Your task to perform on an android device: open app "Spotify: Music and Podcasts" (install if not already installed) Image 0: 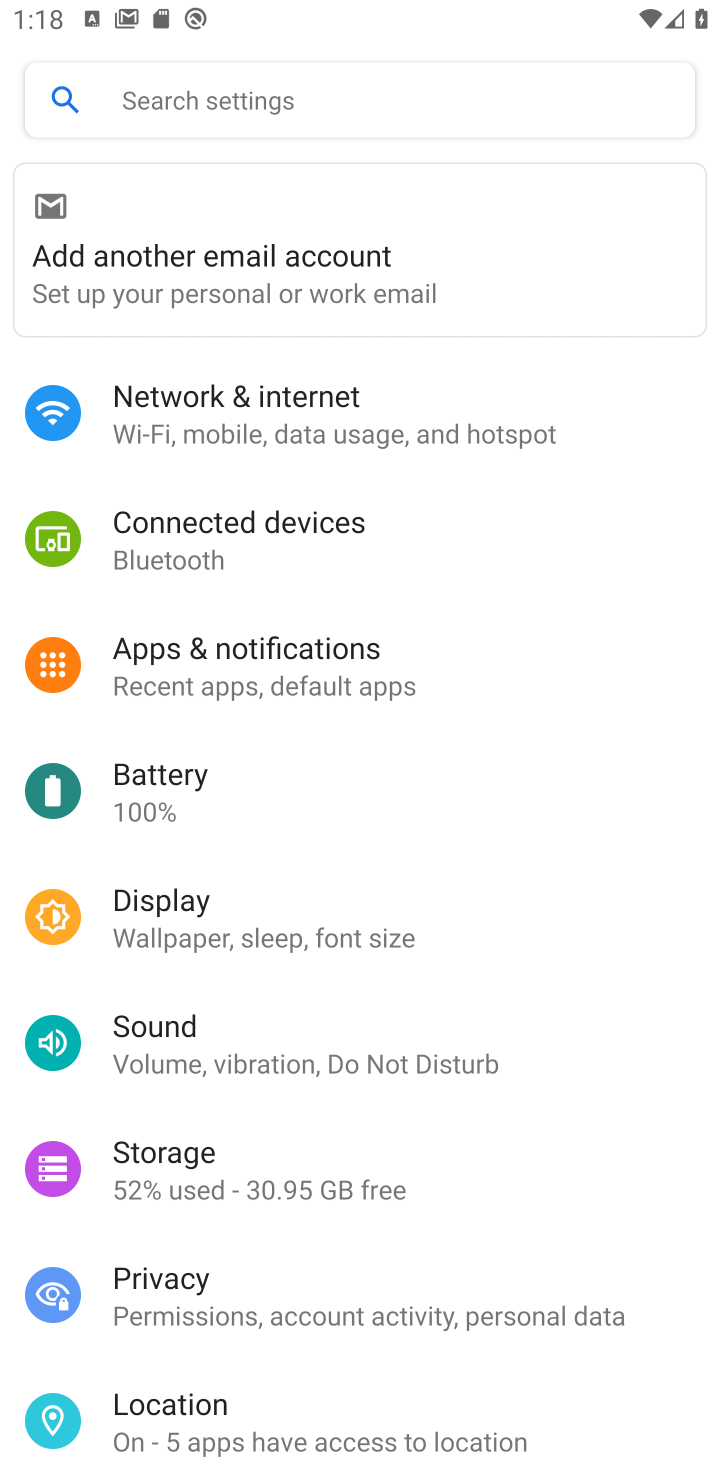
Step 0: press home button
Your task to perform on an android device: open app "Spotify: Music and Podcasts" (install if not already installed) Image 1: 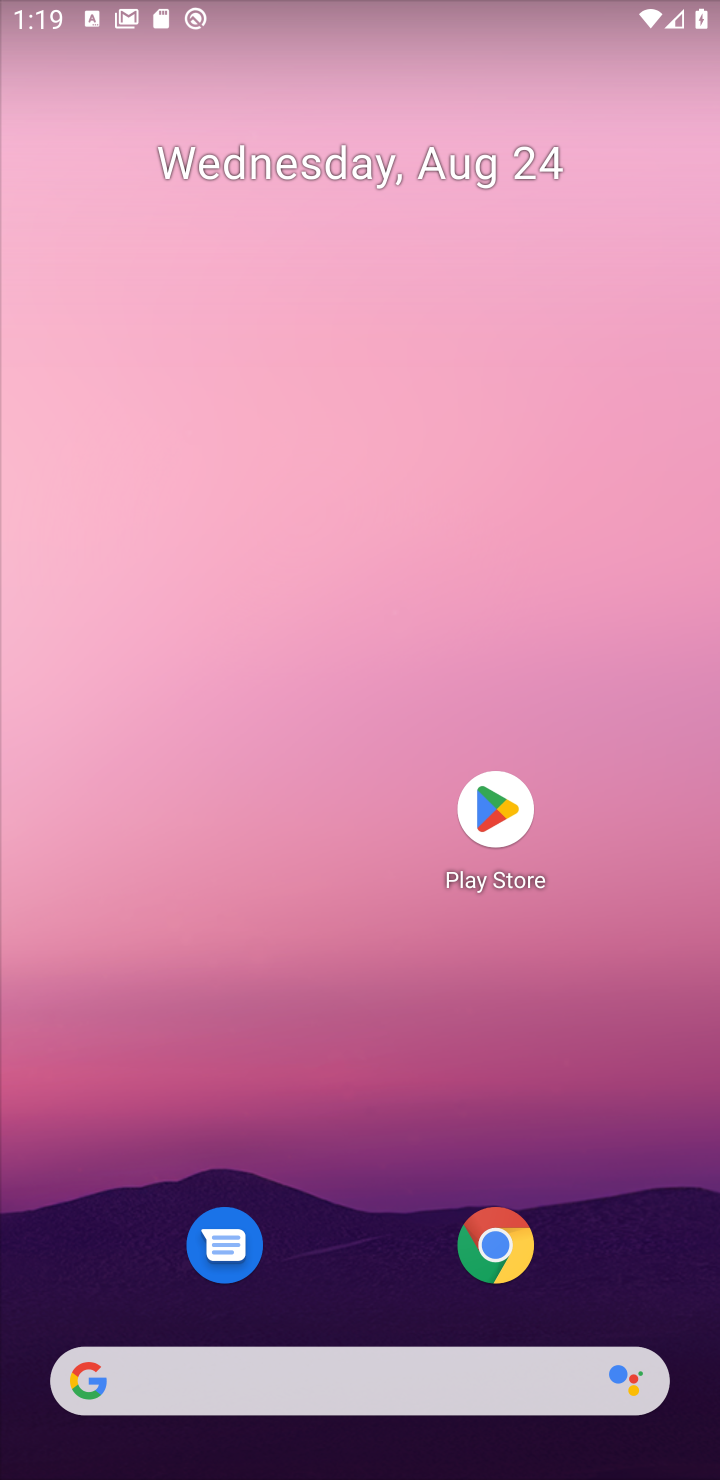
Step 1: click (498, 776)
Your task to perform on an android device: open app "Spotify: Music and Podcasts" (install if not already installed) Image 2: 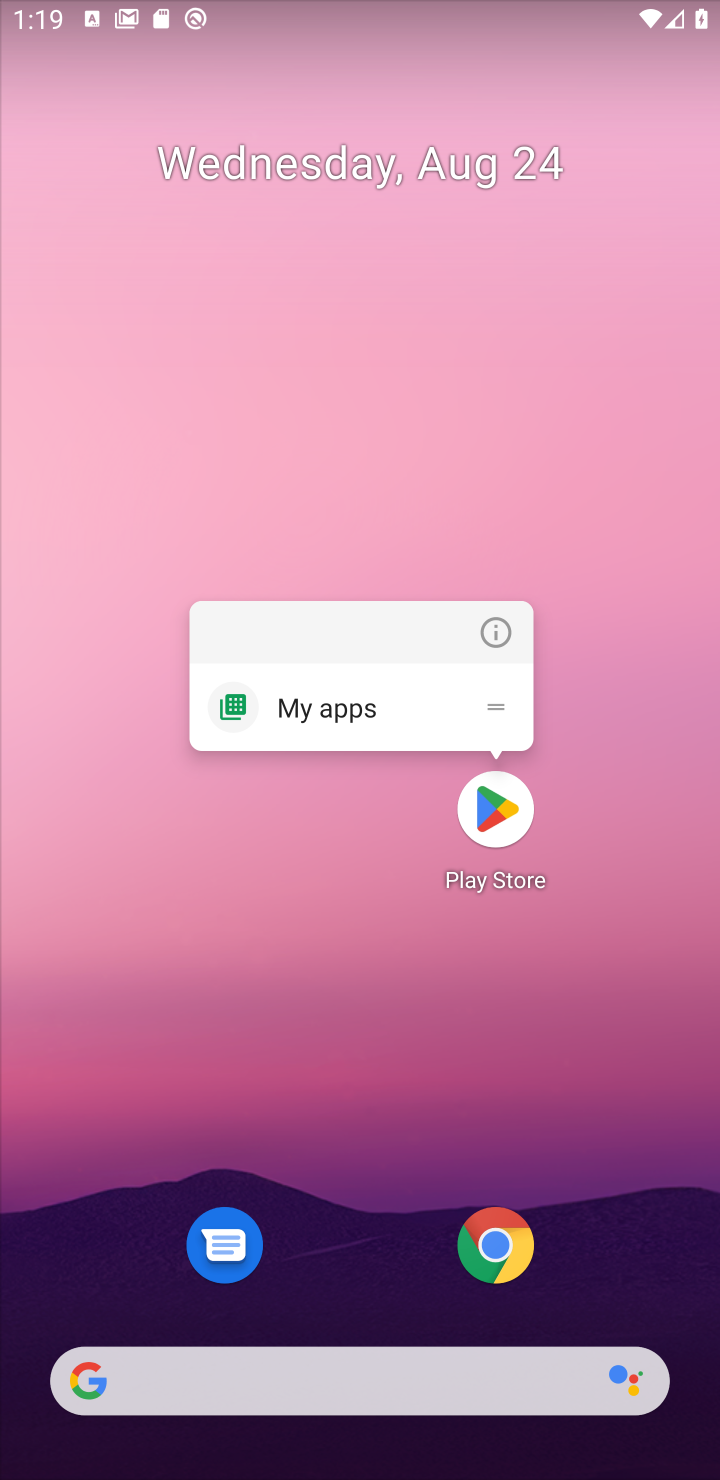
Step 2: click (498, 779)
Your task to perform on an android device: open app "Spotify: Music and Podcasts" (install if not already installed) Image 3: 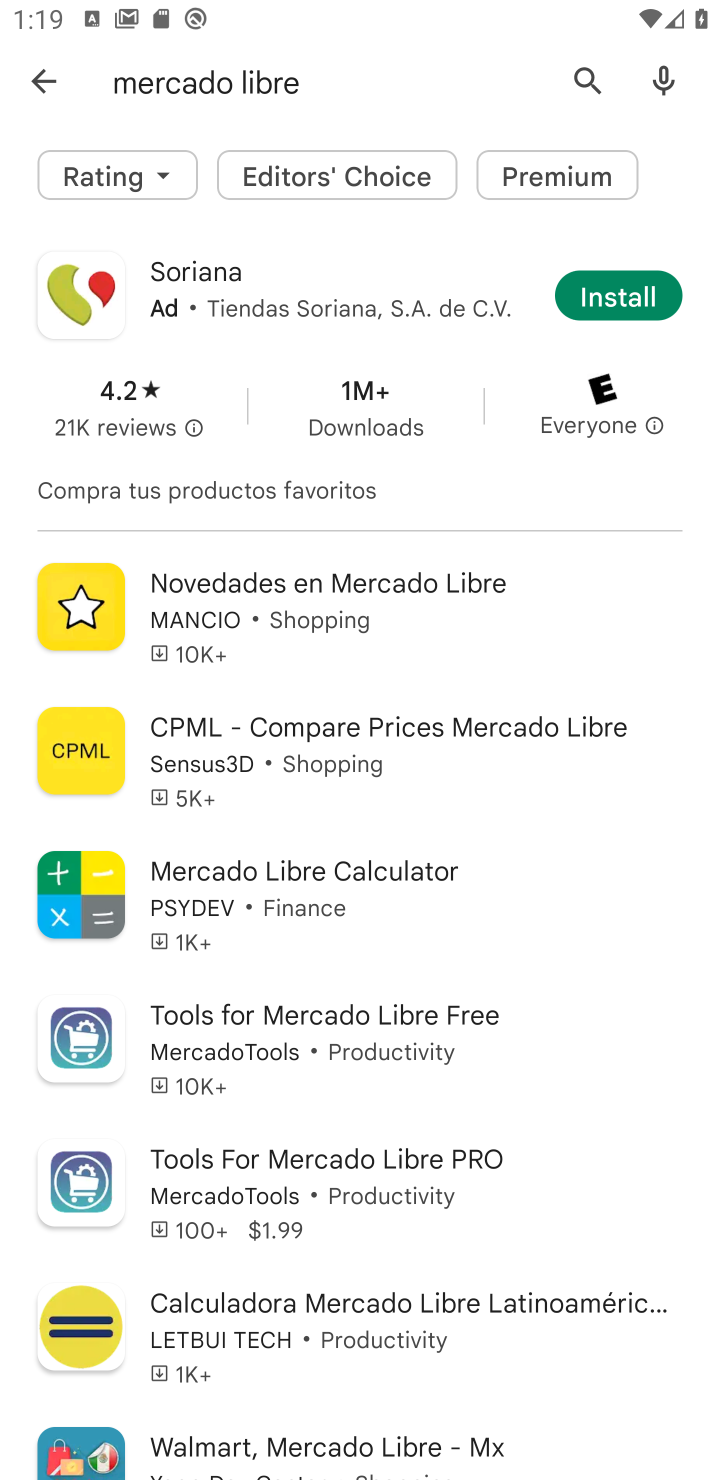
Step 3: click (589, 65)
Your task to perform on an android device: open app "Spotify: Music and Podcasts" (install if not already installed) Image 4: 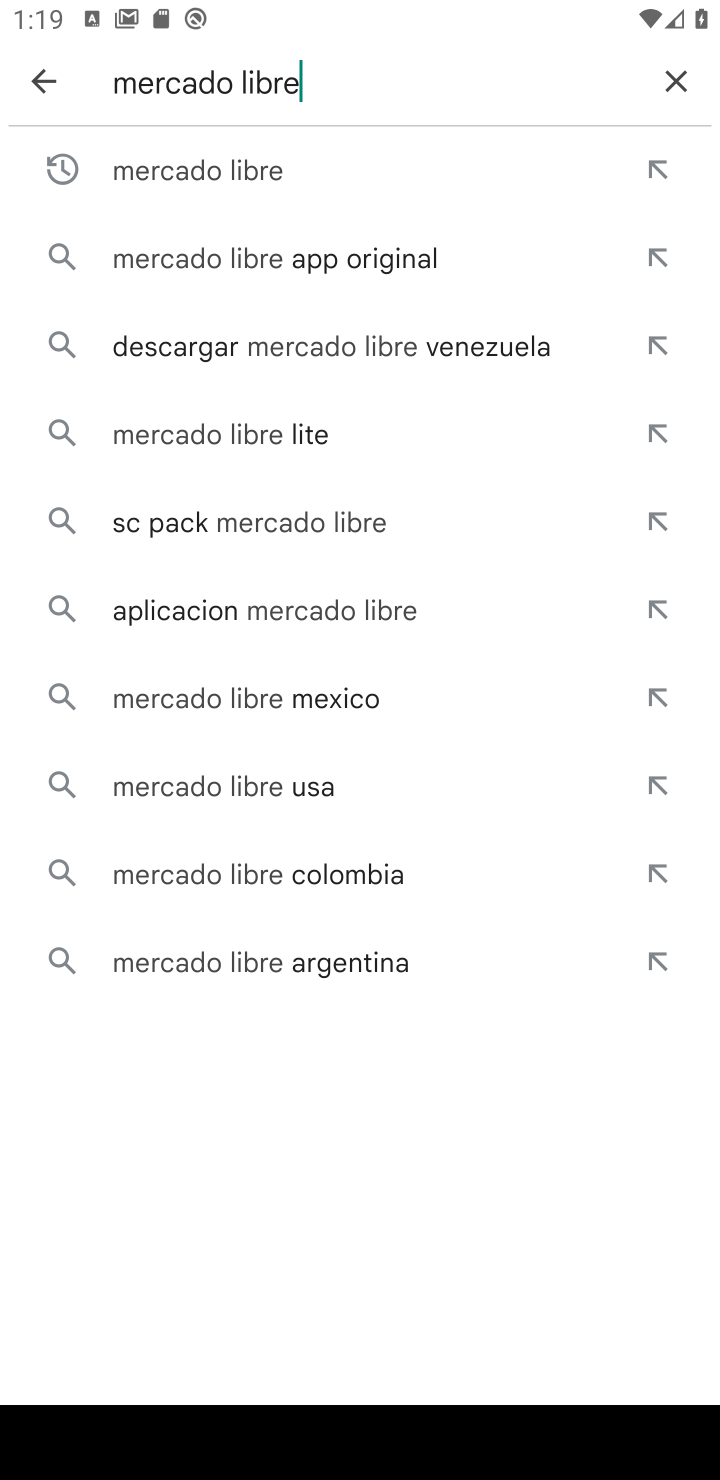
Step 4: click (665, 64)
Your task to perform on an android device: open app "Spotify: Music and Podcasts" (install if not already installed) Image 5: 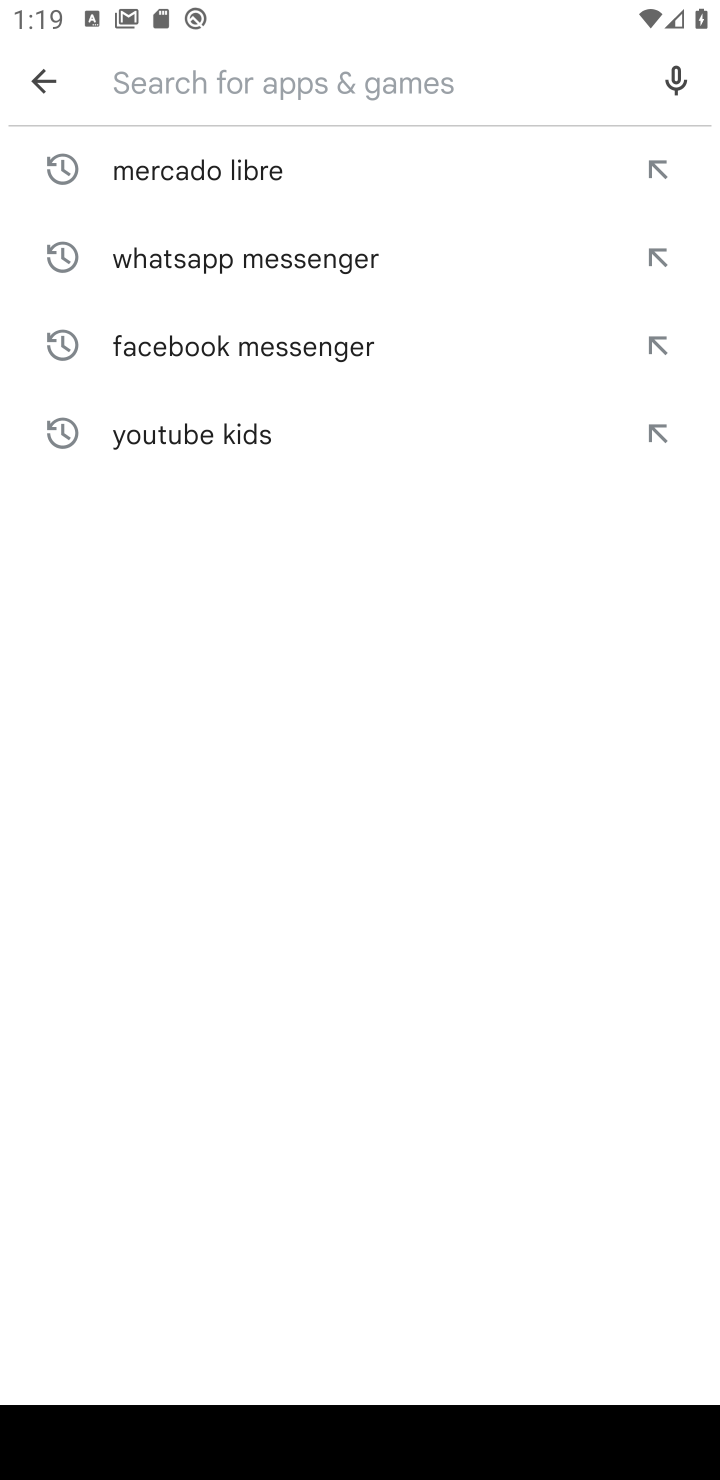
Step 5: type "Spotify: Music and Podcasts"
Your task to perform on an android device: open app "Spotify: Music and Podcasts" (install if not already installed) Image 6: 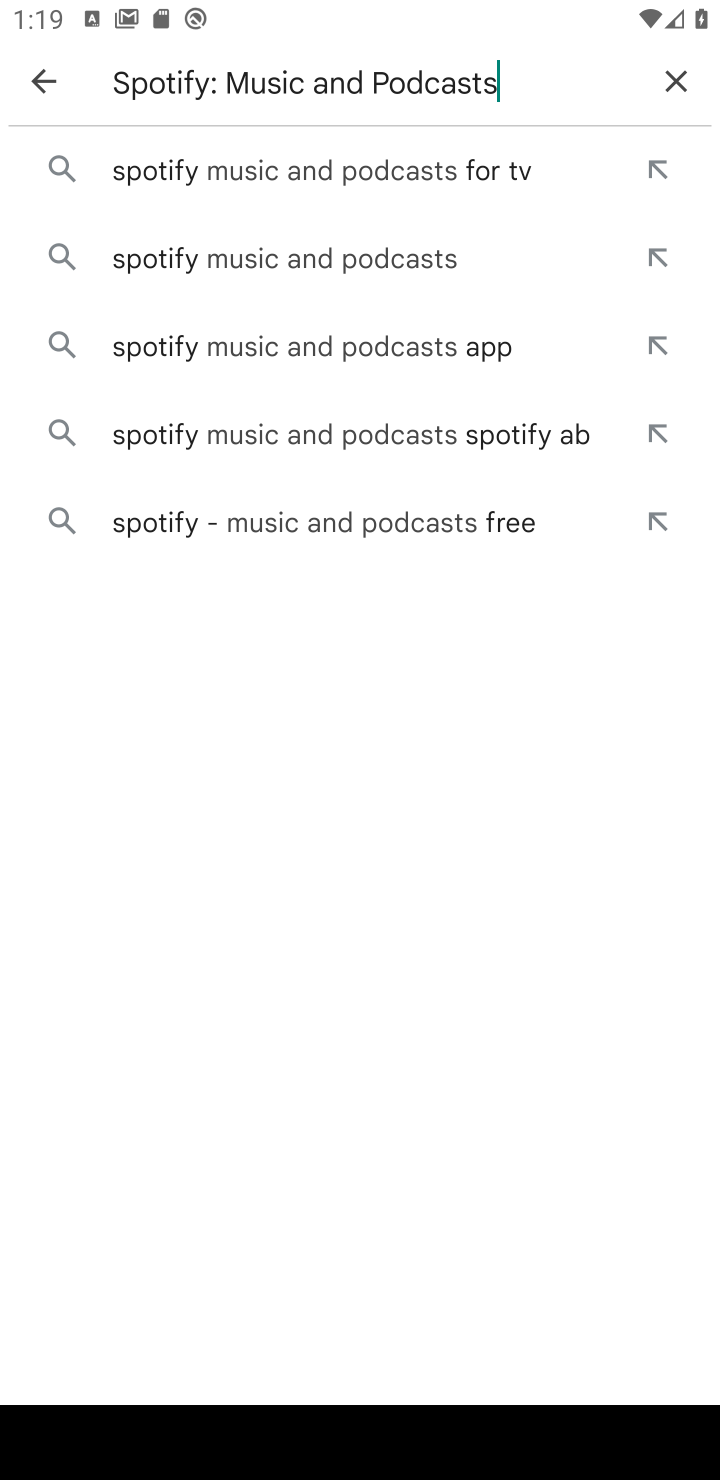
Step 6: click (324, 160)
Your task to perform on an android device: open app "Spotify: Music and Podcasts" (install if not already installed) Image 7: 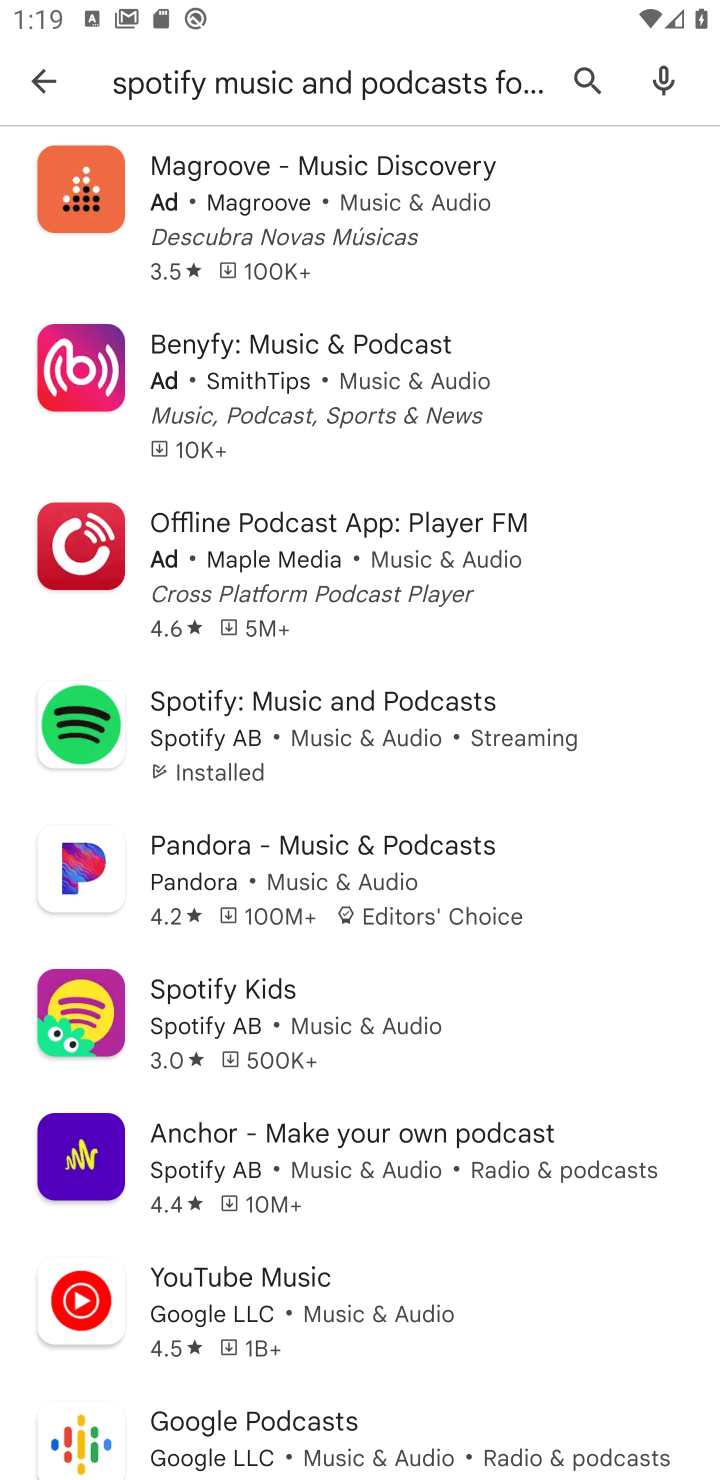
Step 7: click (362, 743)
Your task to perform on an android device: open app "Spotify: Music and Podcasts" (install if not already installed) Image 8: 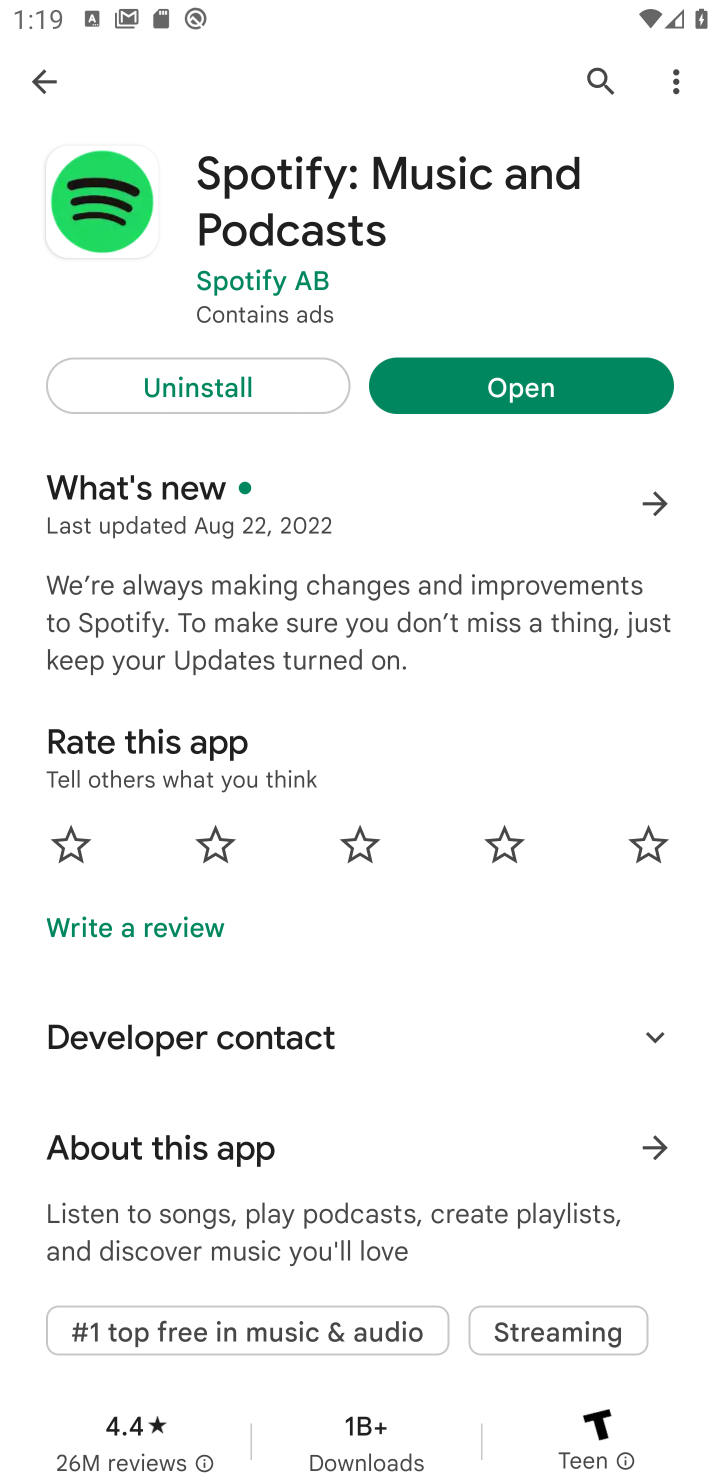
Step 8: click (545, 371)
Your task to perform on an android device: open app "Spotify: Music and Podcasts" (install if not already installed) Image 9: 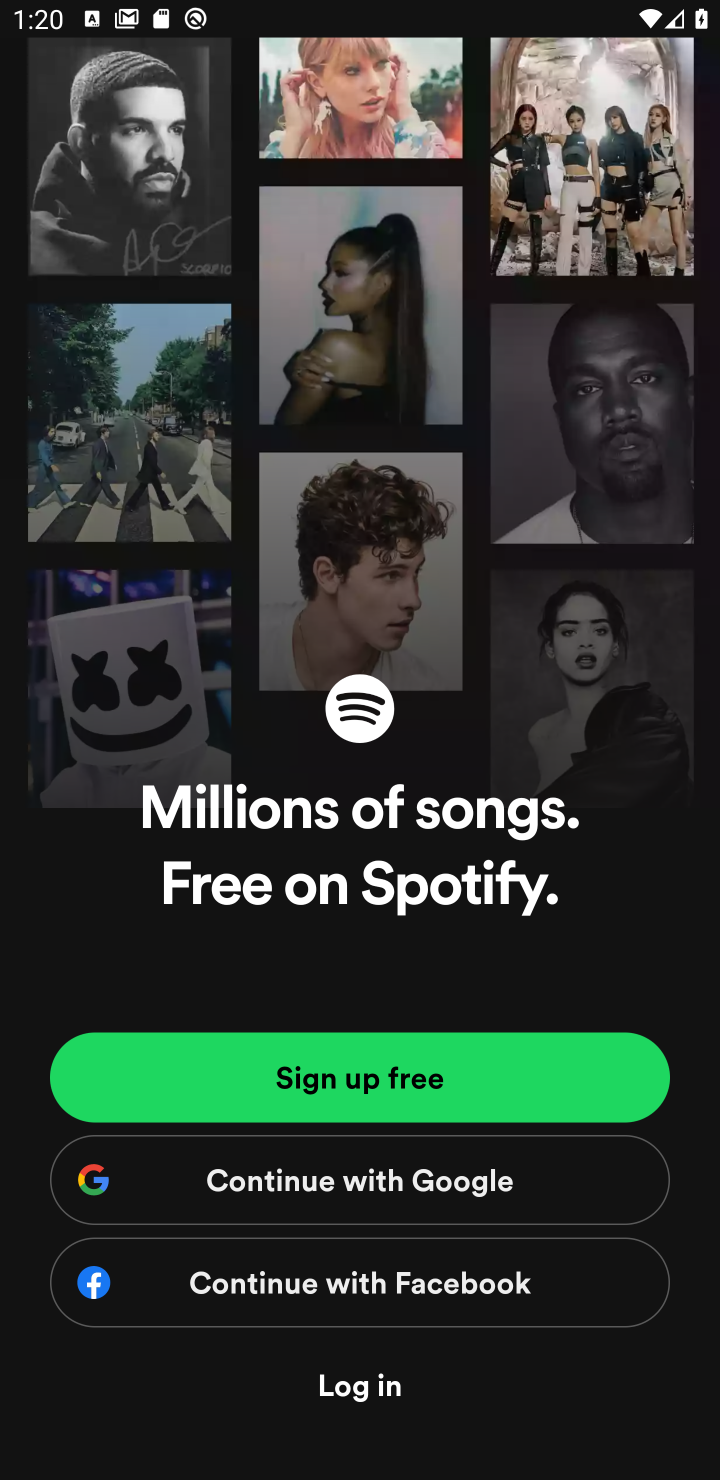
Step 9: task complete